Your task to perform on an android device: set the timer Image 0: 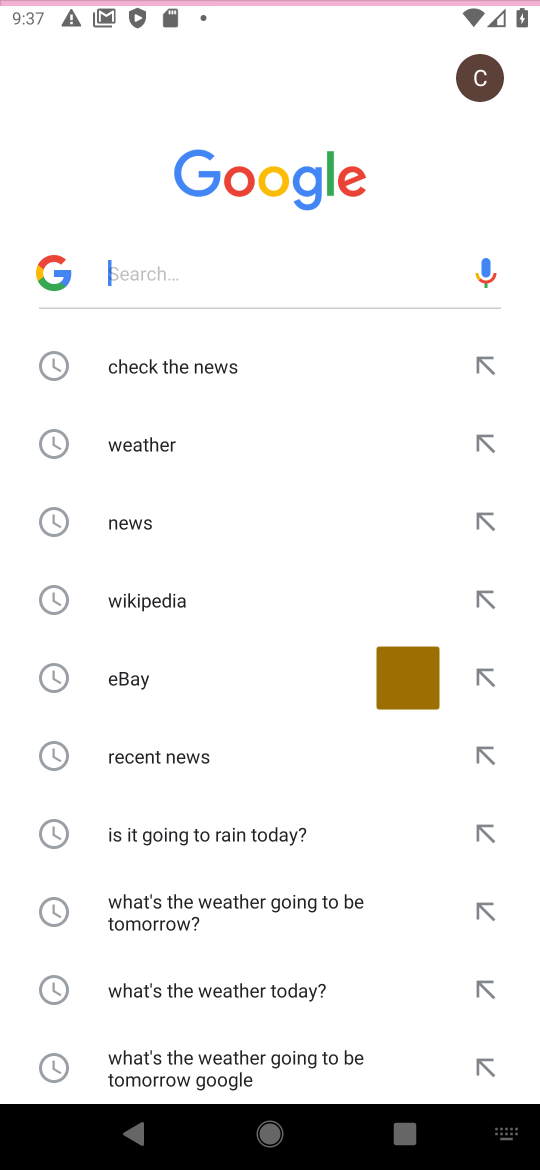
Step 0: press home button
Your task to perform on an android device: set the timer Image 1: 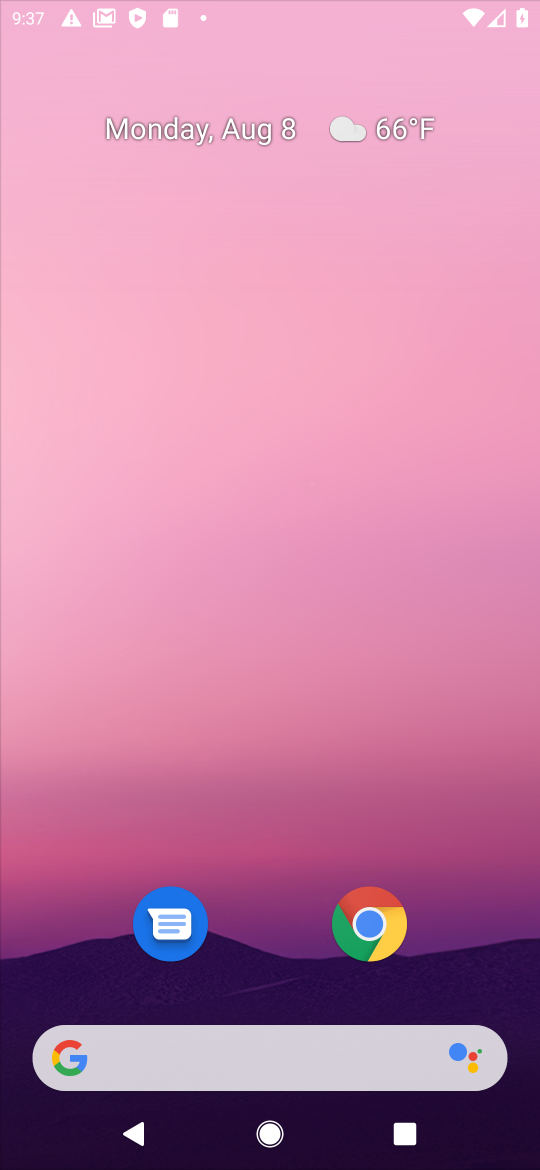
Step 1: press home button
Your task to perform on an android device: set the timer Image 2: 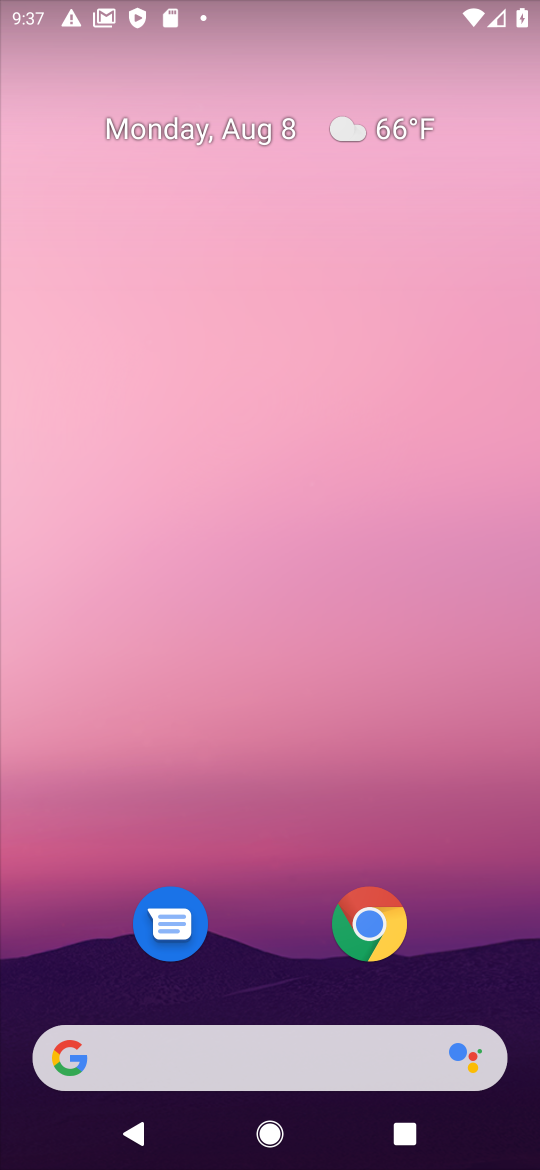
Step 2: drag from (254, 996) to (326, 63)
Your task to perform on an android device: set the timer Image 3: 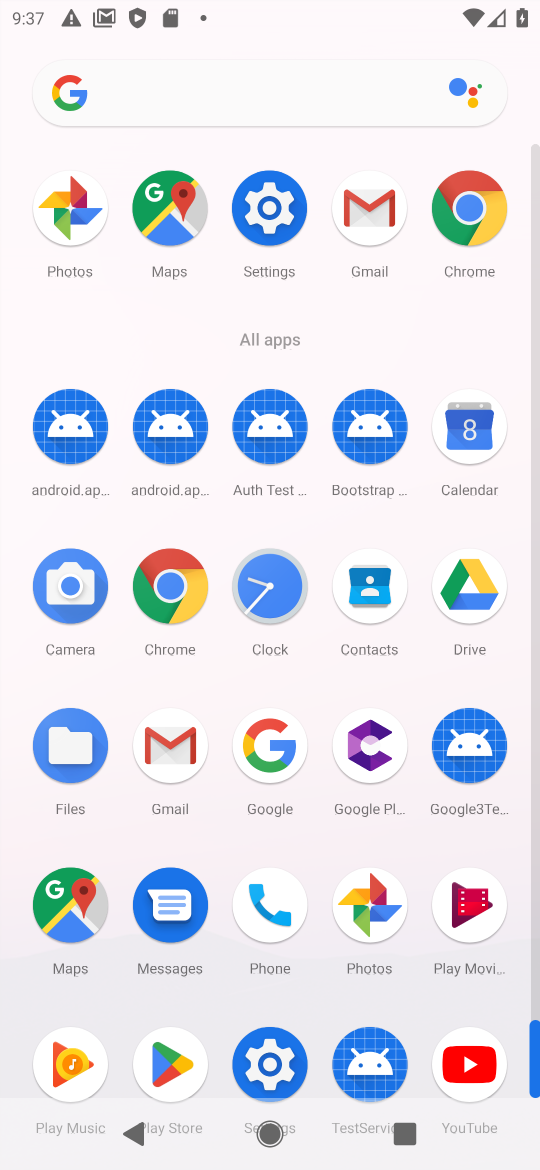
Step 3: click (266, 577)
Your task to perform on an android device: set the timer Image 4: 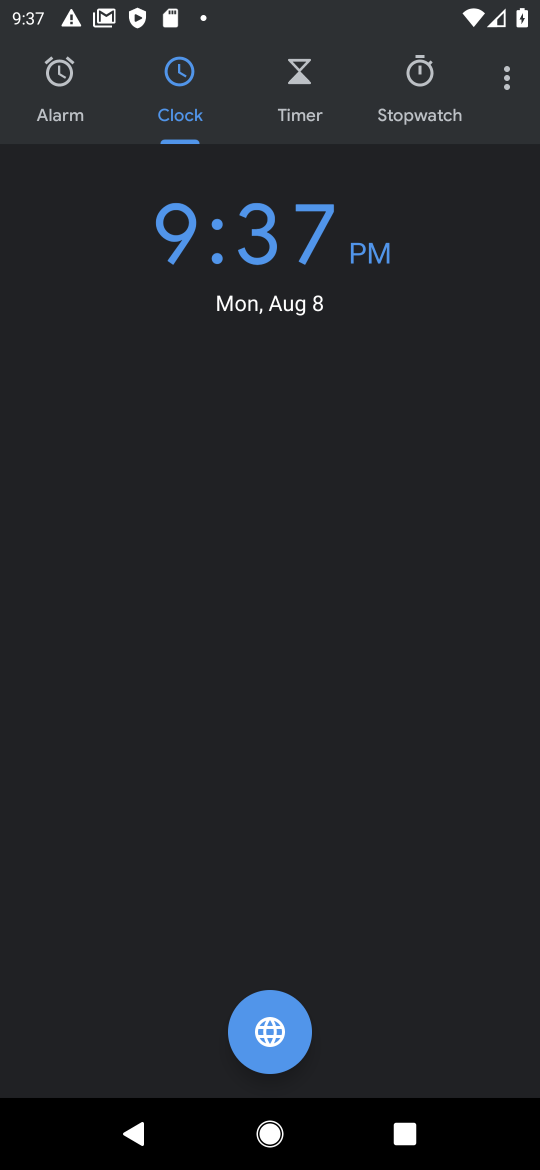
Step 4: click (286, 98)
Your task to perform on an android device: set the timer Image 5: 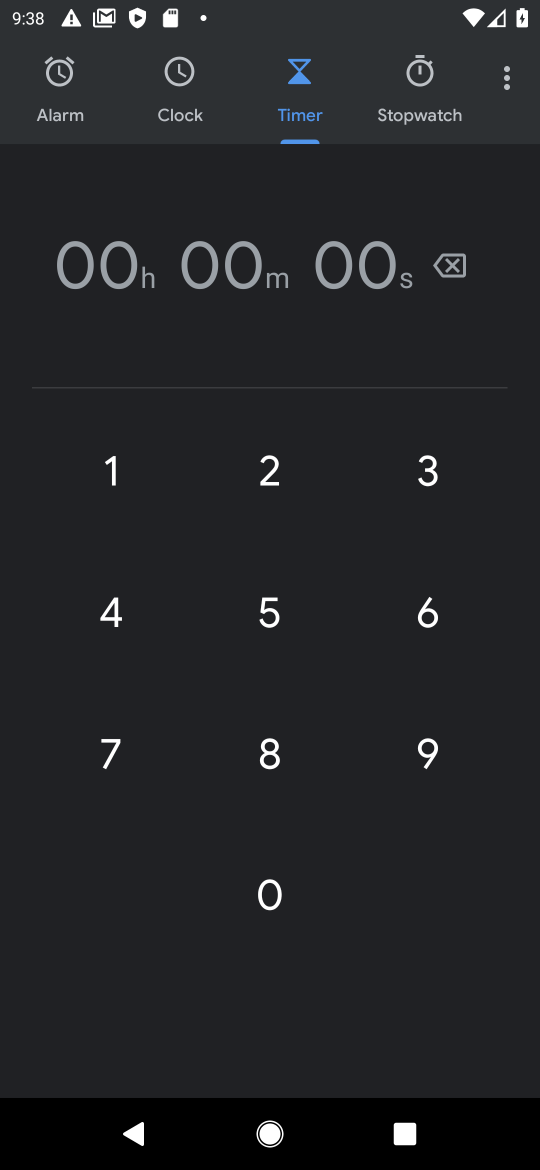
Step 5: click (109, 470)
Your task to perform on an android device: set the timer Image 6: 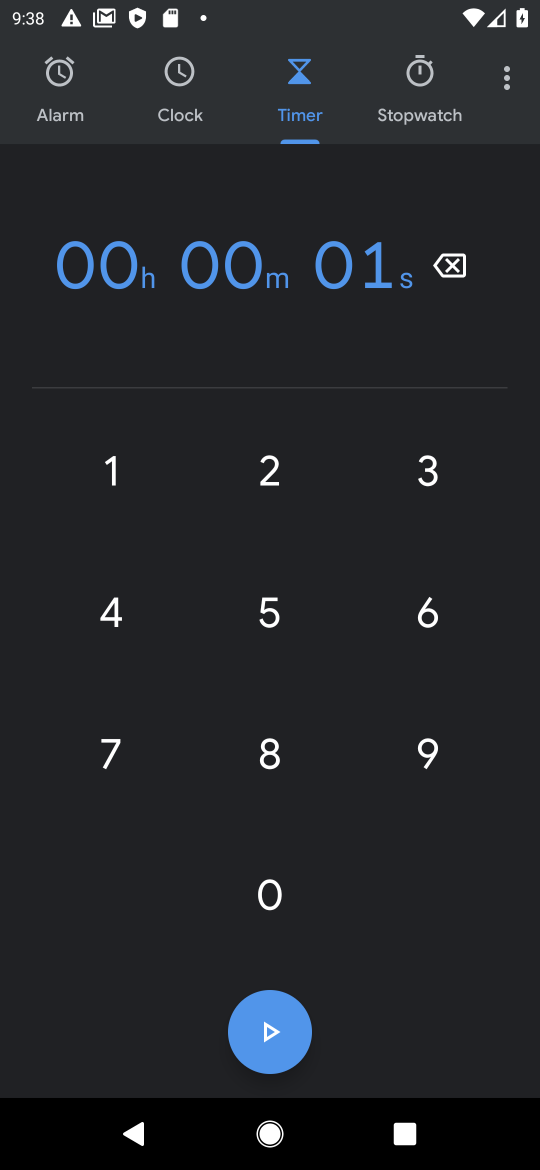
Step 6: click (109, 470)
Your task to perform on an android device: set the timer Image 7: 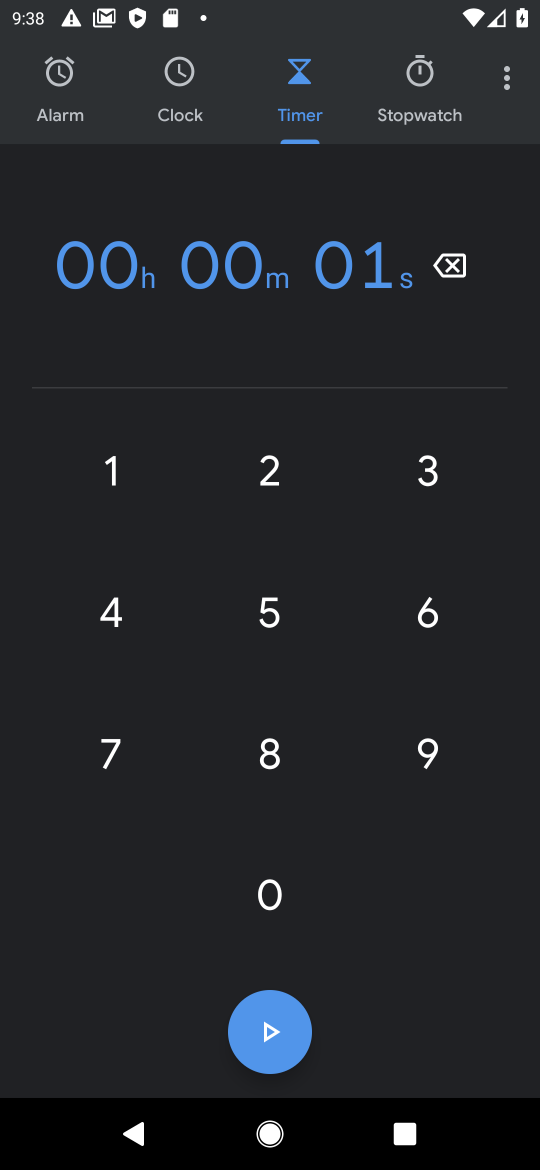
Step 7: click (109, 470)
Your task to perform on an android device: set the timer Image 8: 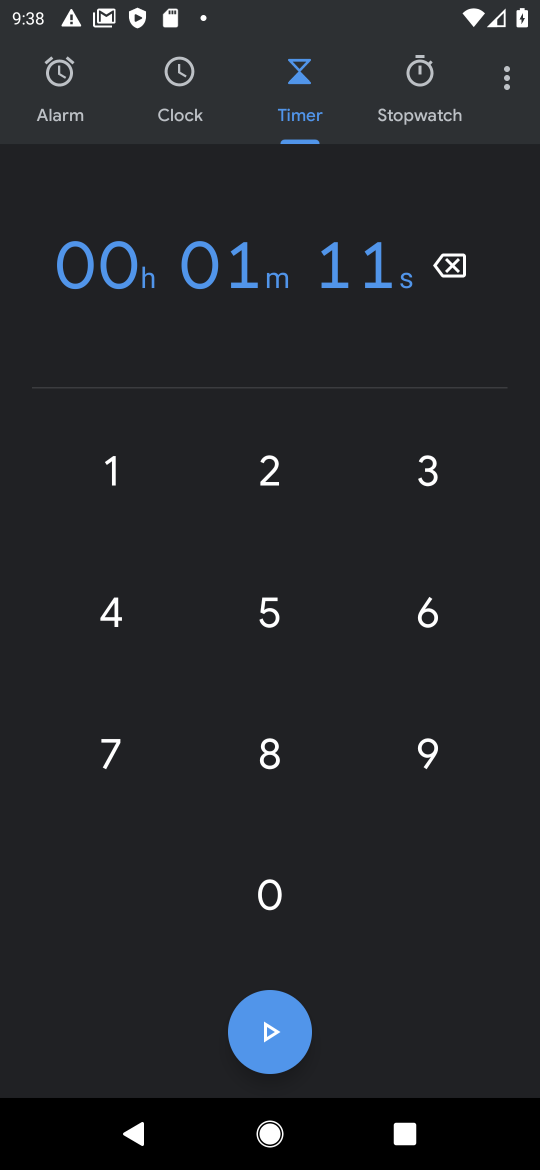
Step 8: click (261, 888)
Your task to perform on an android device: set the timer Image 9: 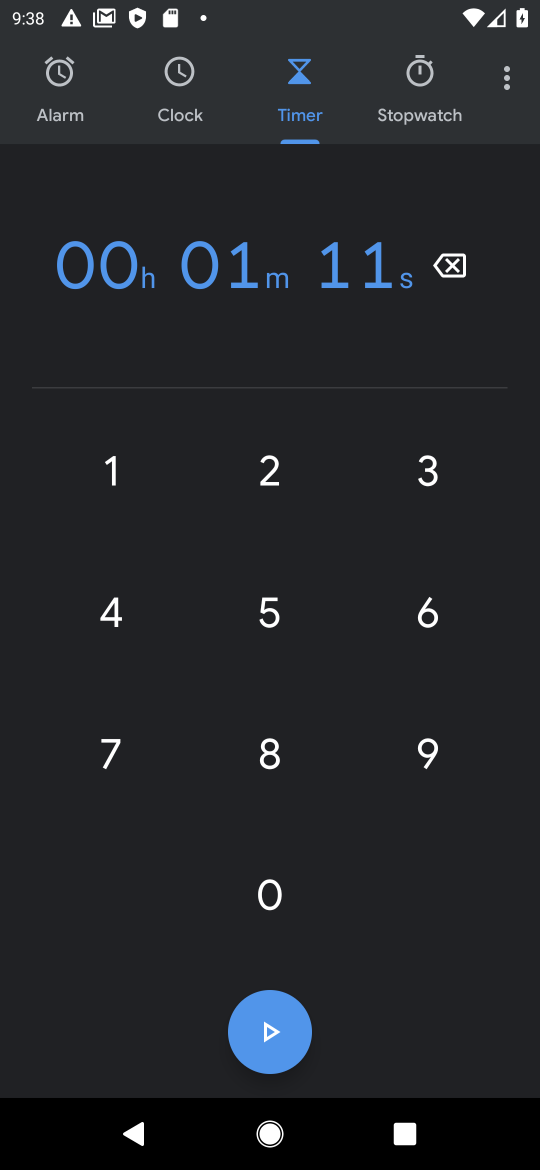
Step 9: click (263, 888)
Your task to perform on an android device: set the timer Image 10: 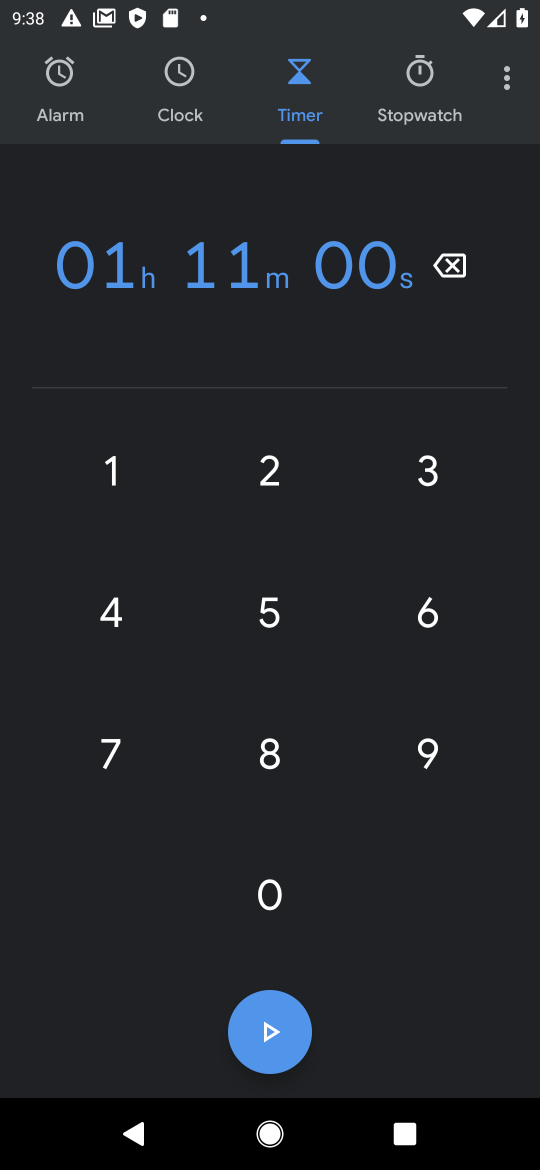
Step 10: click (273, 745)
Your task to perform on an android device: set the timer Image 11: 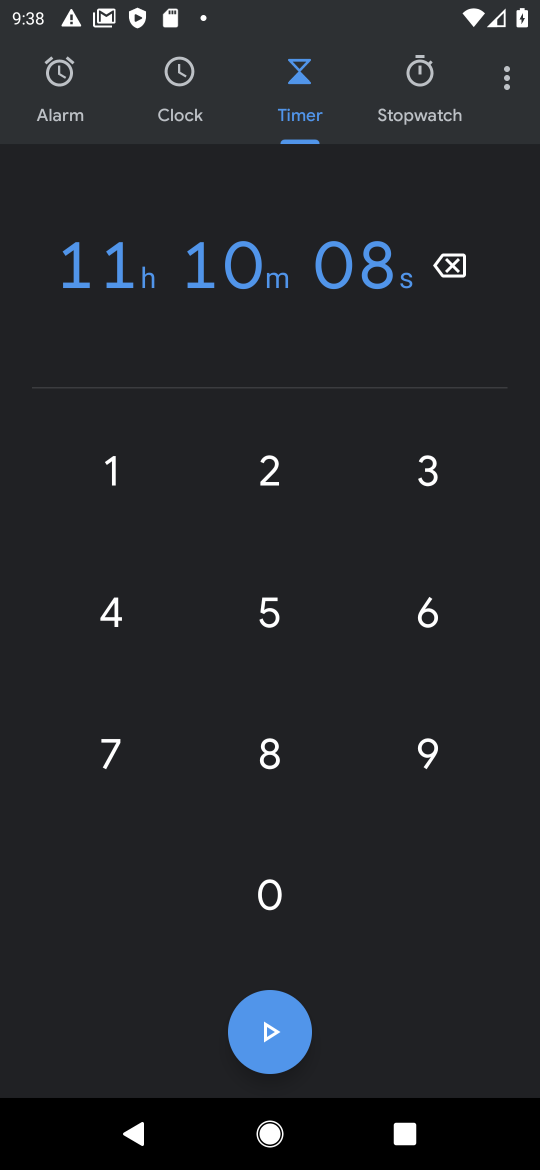
Step 11: click (273, 745)
Your task to perform on an android device: set the timer Image 12: 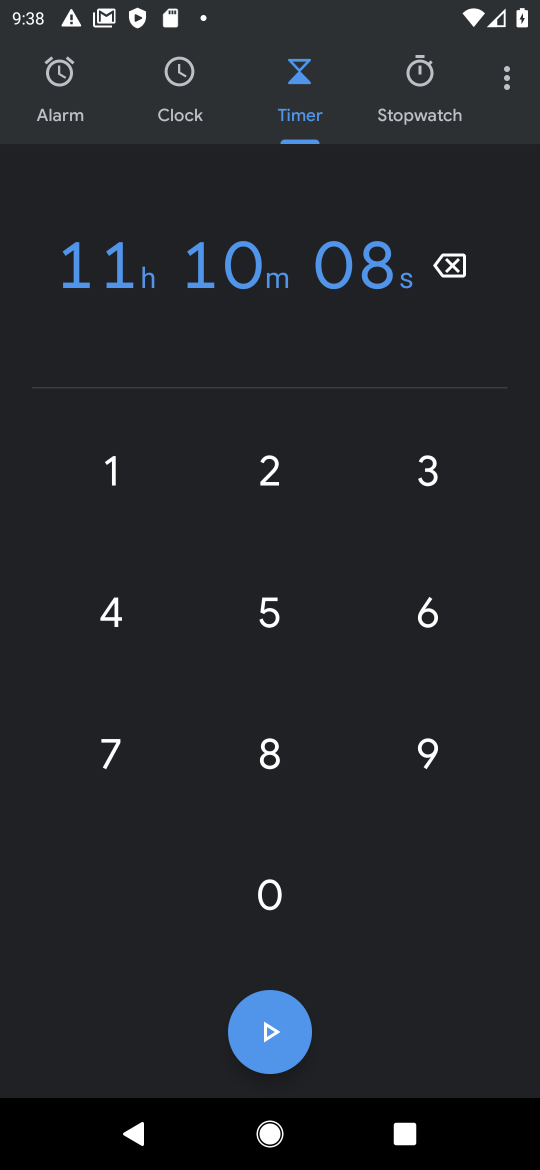
Step 12: task complete